Your task to perform on an android device: star an email in the gmail app Image 0: 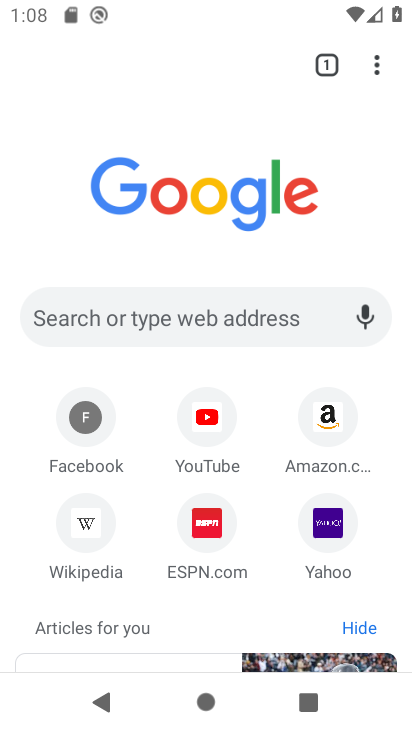
Step 0: press home button
Your task to perform on an android device: star an email in the gmail app Image 1: 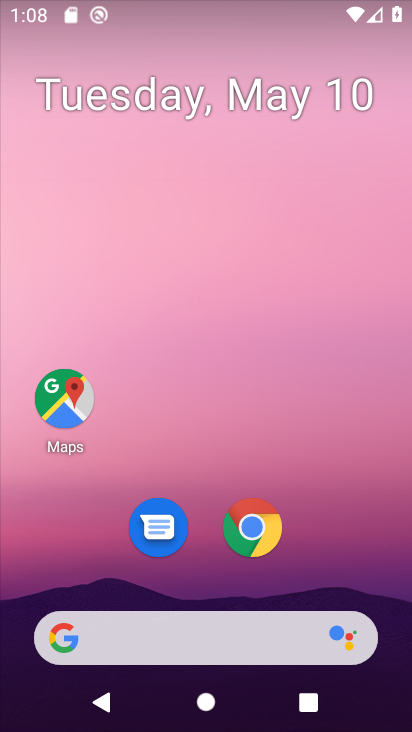
Step 1: drag from (205, 487) to (247, 114)
Your task to perform on an android device: star an email in the gmail app Image 2: 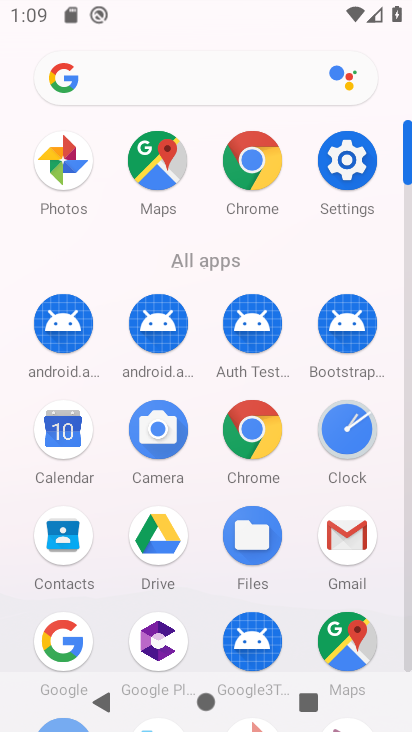
Step 2: click (324, 519)
Your task to perform on an android device: star an email in the gmail app Image 3: 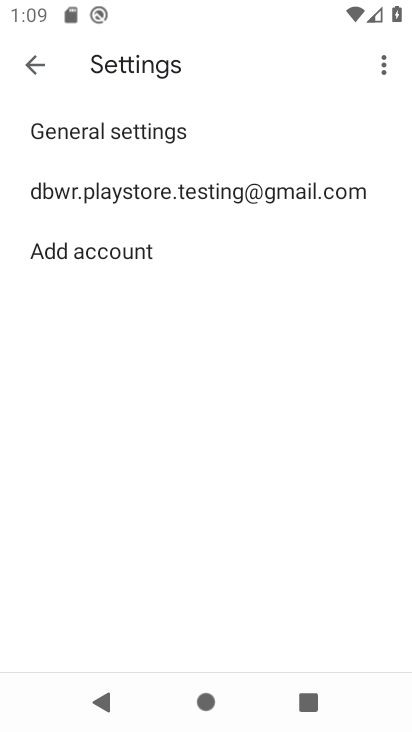
Step 3: click (46, 69)
Your task to perform on an android device: star an email in the gmail app Image 4: 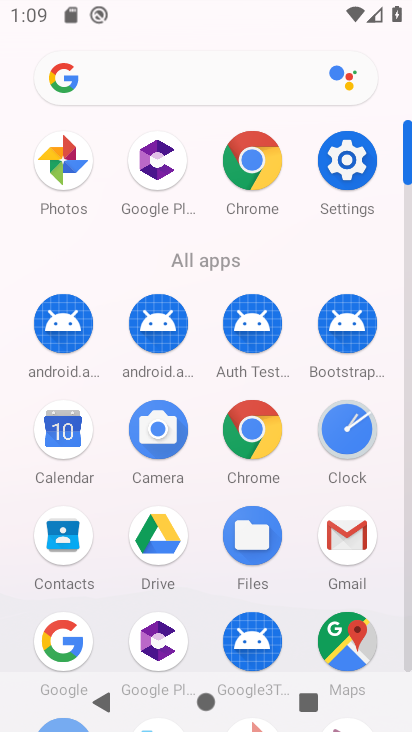
Step 4: click (339, 544)
Your task to perform on an android device: star an email in the gmail app Image 5: 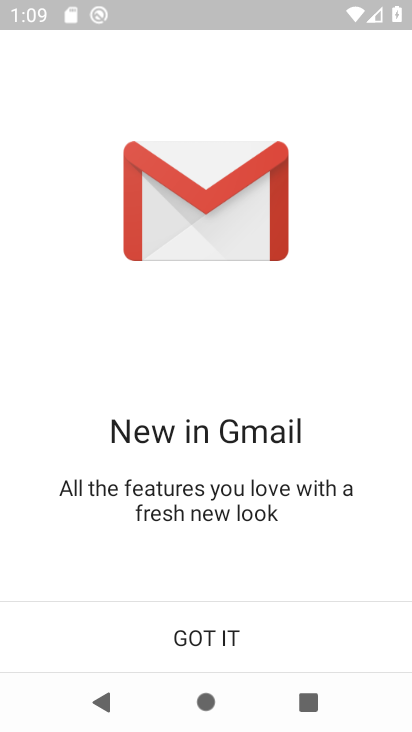
Step 5: click (192, 641)
Your task to perform on an android device: star an email in the gmail app Image 6: 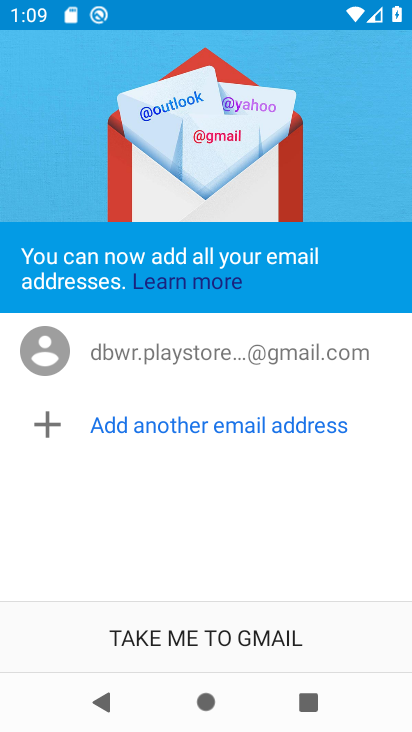
Step 6: click (192, 641)
Your task to perform on an android device: star an email in the gmail app Image 7: 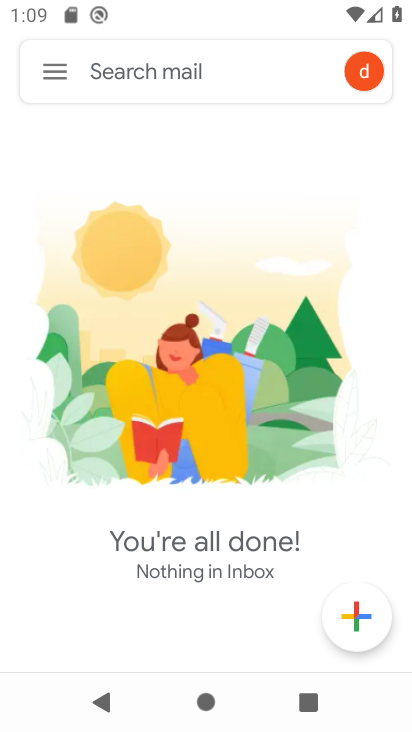
Step 7: task complete